Your task to perform on an android device: What's the weather today? Image 0: 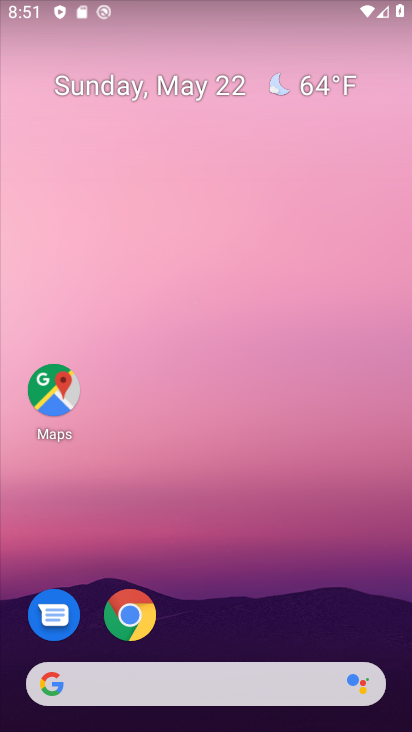
Step 0: drag from (221, 626) to (254, 141)
Your task to perform on an android device: What's the weather today? Image 1: 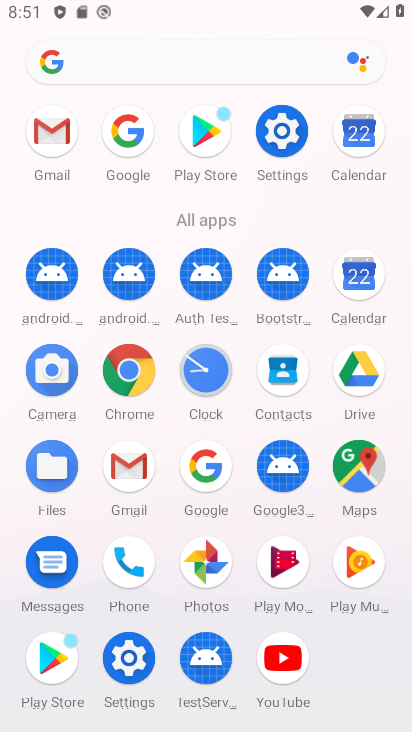
Step 1: click (207, 482)
Your task to perform on an android device: What's the weather today? Image 2: 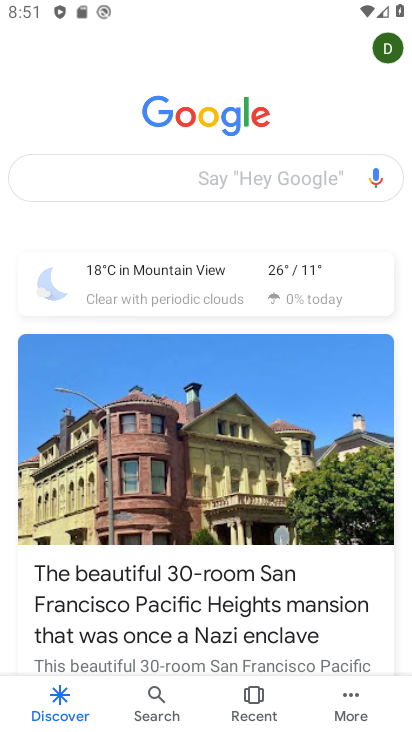
Step 2: click (263, 174)
Your task to perform on an android device: What's the weather today? Image 3: 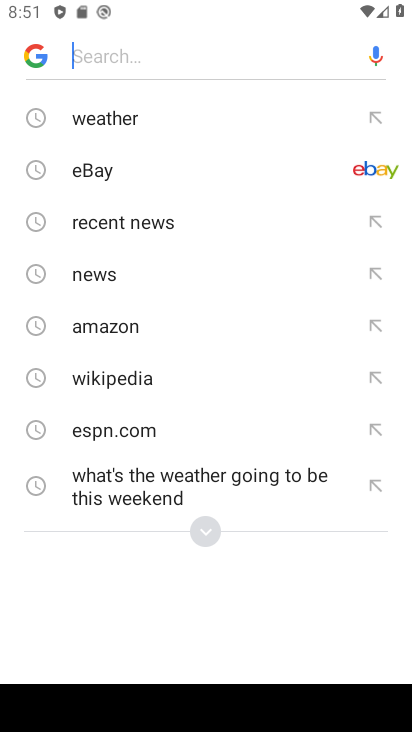
Step 3: click (163, 116)
Your task to perform on an android device: What's the weather today? Image 4: 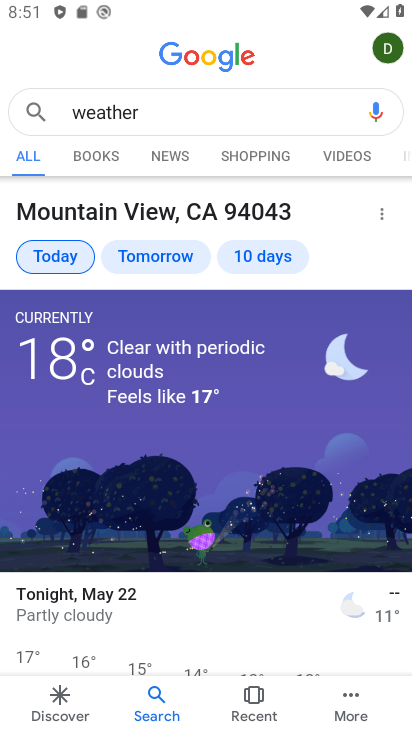
Step 4: task complete